Your task to perform on an android device: Search for seafood restaurants on Google Maps Image 0: 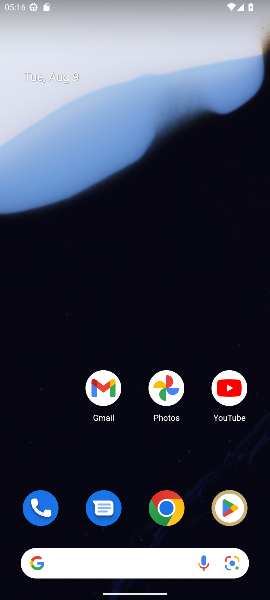
Step 0: drag from (158, 459) to (265, 250)
Your task to perform on an android device: Search for seafood restaurants on Google Maps Image 1: 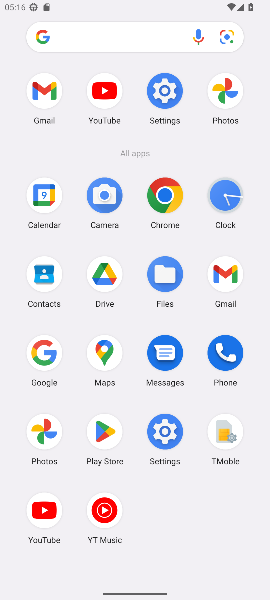
Step 1: click (103, 359)
Your task to perform on an android device: Search for seafood restaurants on Google Maps Image 2: 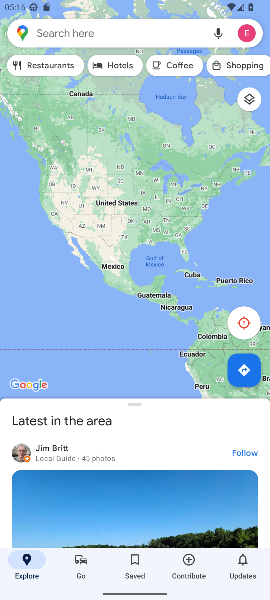
Step 2: click (66, 33)
Your task to perform on an android device: Search for seafood restaurants on Google Maps Image 3: 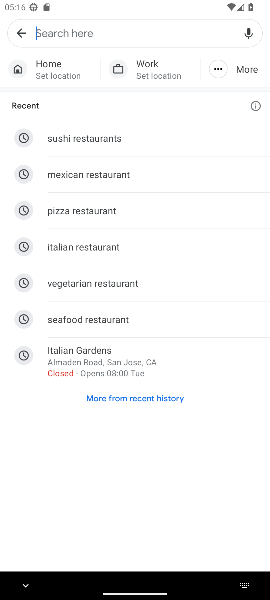
Step 3: type "seafood restaurants"
Your task to perform on an android device: Search for seafood restaurants on Google Maps Image 4: 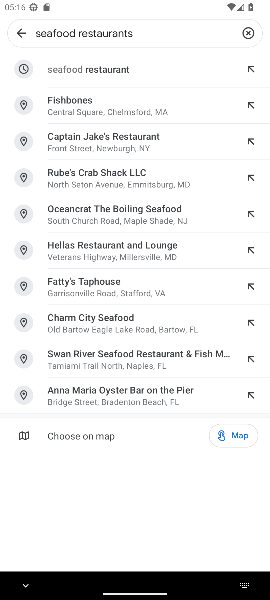
Step 4: click (140, 64)
Your task to perform on an android device: Search for seafood restaurants on Google Maps Image 5: 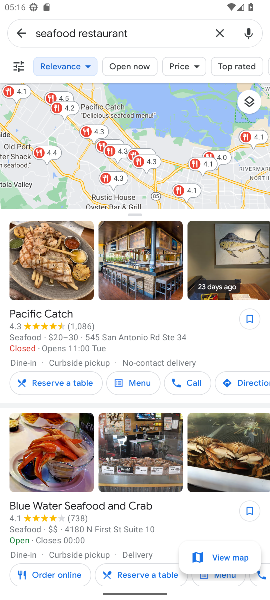
Step 5: task complete